Your task to perform on an android device: allow notifications from all sites in the chrome app Image 0: 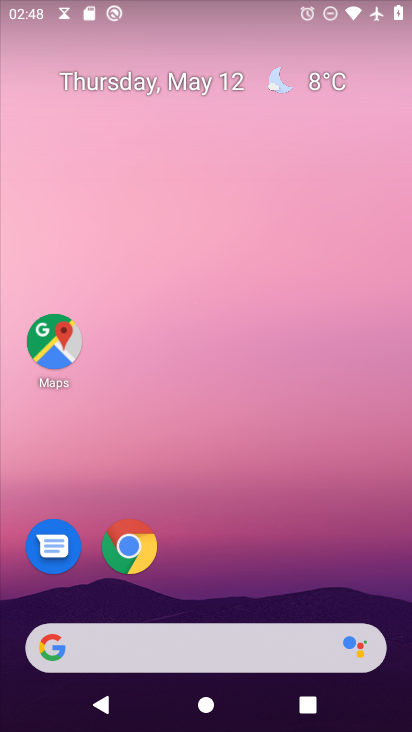
Step 0: drag from (197, 631) to (302, 186)
Your task to perform on an android device: allow notifications from all sites in the chrome app Image 1: 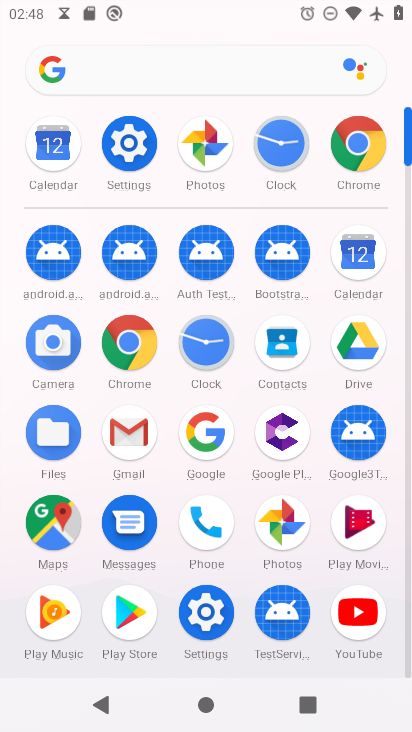
Step 1: click (347, 148)
Your task to perform on an android device: allow notifications from all sites in the chrome app Image 2: 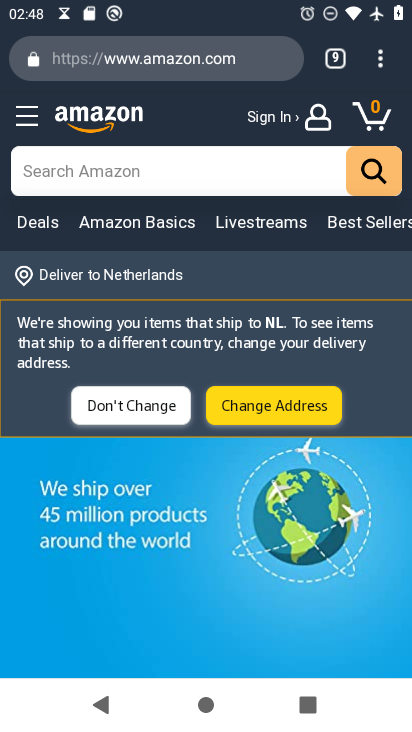
Step 2: drag from (384, 71) to (257, 574)
Your task to perform on an android device: allow notifications from all sites in the chrome app Image 3: 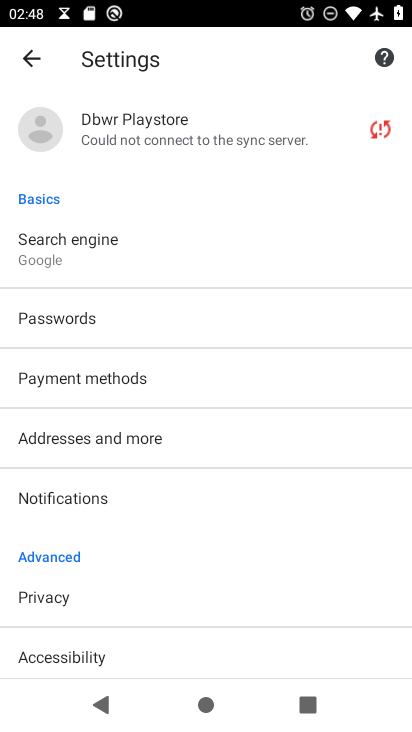
Step 3: drag from (152, 650) to (231, 367)
Your task to perform on an android device: allow notifications from all sites in the chrome app Image 4: 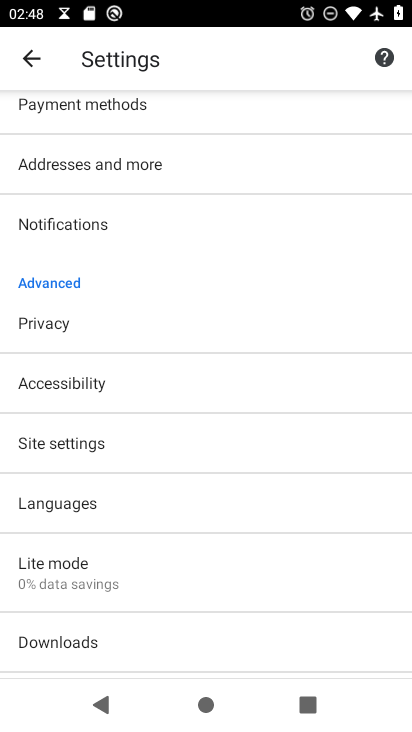
Step 4: click (95, 452)
Your task to perform on an android device: allow notifications from all sites in the chrome app Image 5: 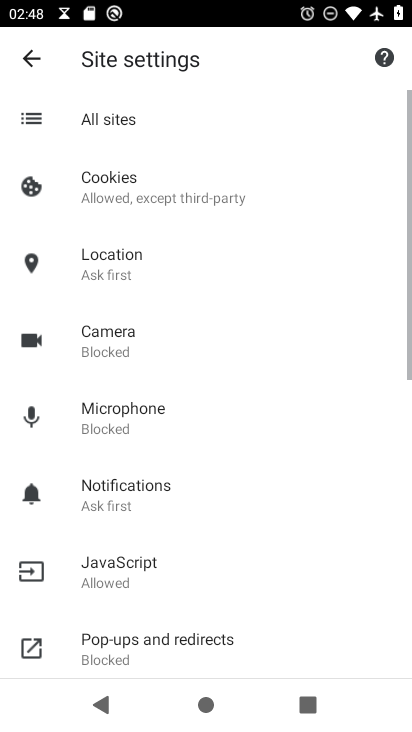
Step 5: click (127, 497)
Your task to perform on an android device: allow notifications from all sites in the chrome app Image 6: 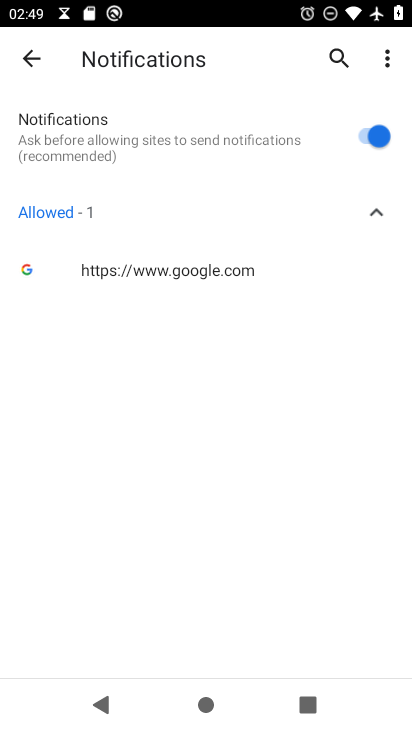
Step 6: task complete